Your task to perform on an android device: Is it going to rain today? Image 0: 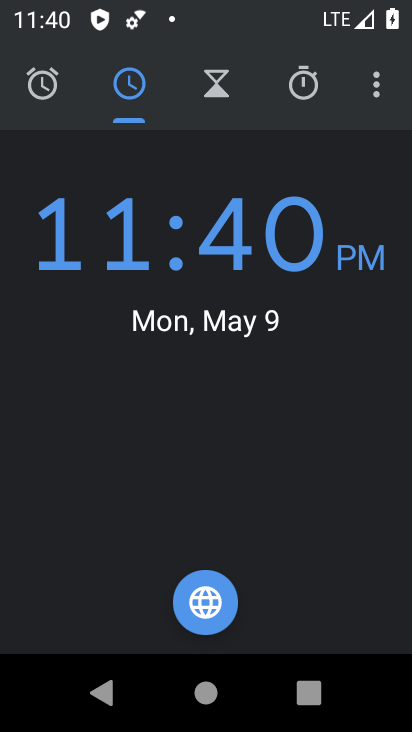
Step 0: press back button
Your task to perform on an android device: Is it going to rain today? Image 1: 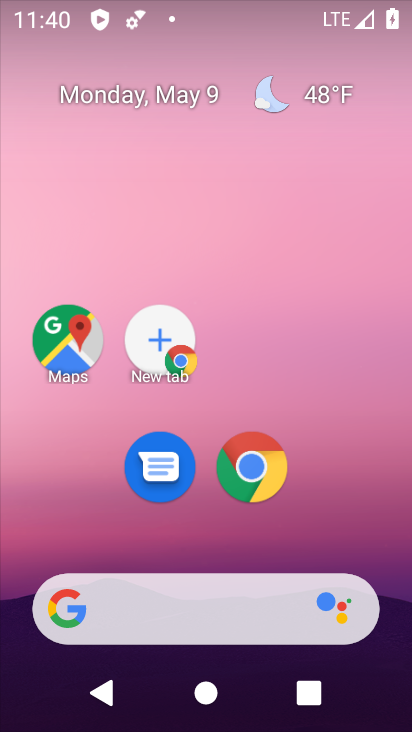
Step 1: drag from (411, 407) to (382, 383)
Your task to perform on an android device: Is it going to rain today? Image 2: 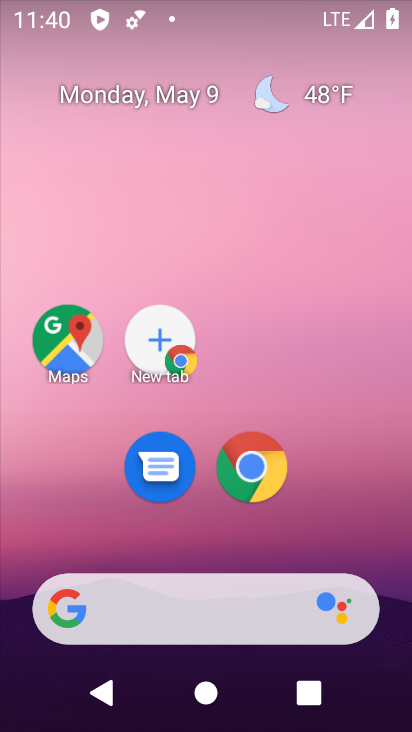
Step 2: click (277, 100)
Your task to perform on an android device: Is it going to rain today? Image 3: 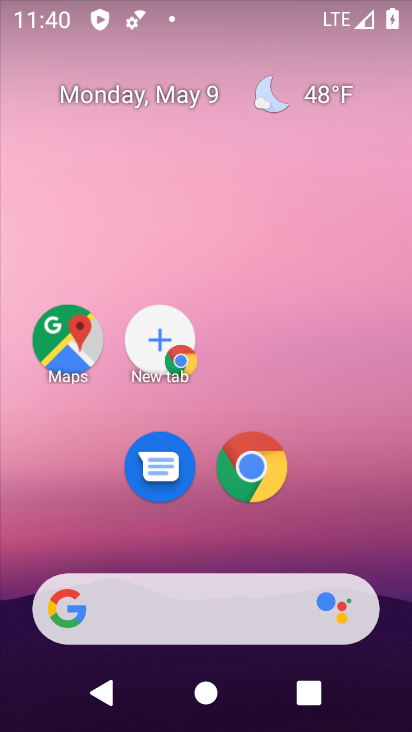
Step 3: click (277, 100)
Your task to perform on an android device: Is it going to rain today? Image 4: 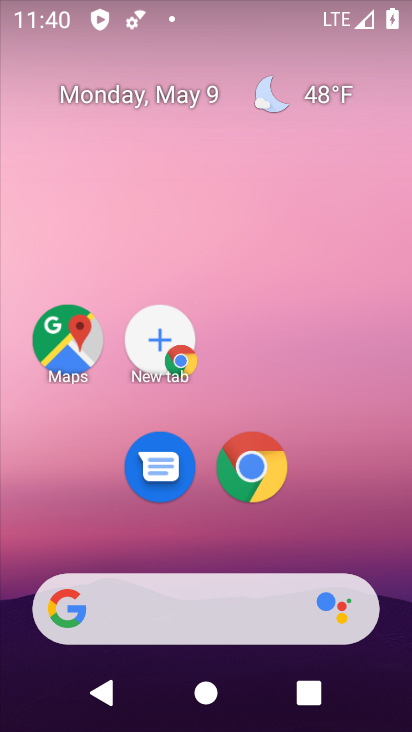
Step 4: click (277, 100)
Your task to perform on an android device: Is it going to rain today? Image 5: 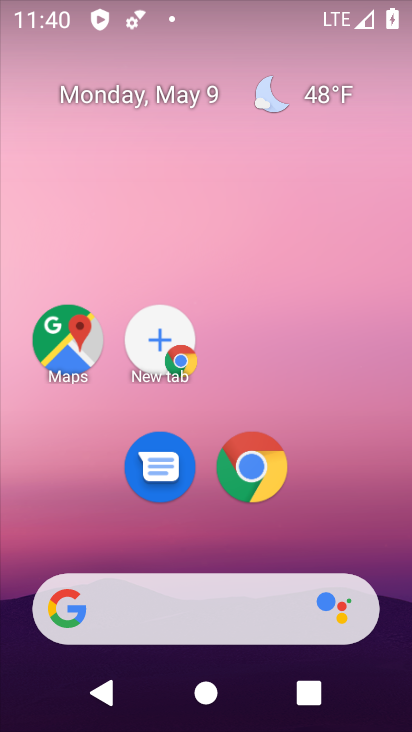
Step 5: click (277, 100)
Your task to perform on an android device: Is it going to rain today? Image 6: 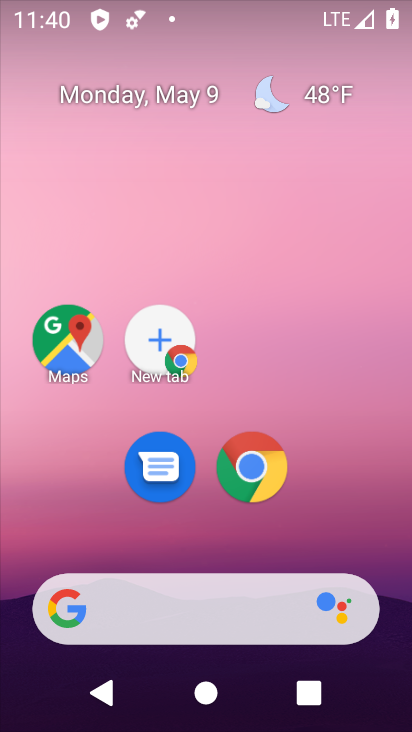
Step 6: click (276, 103)
Your task to perform on an android device: Is it going to rain today? Image 7: 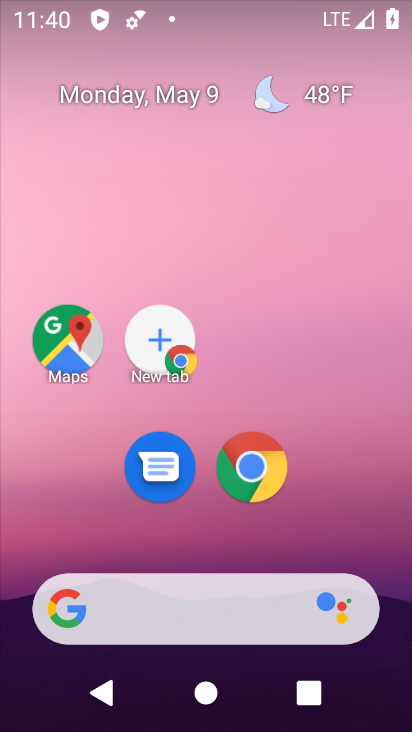
Step 7: click (276, 103)
Your task to perform on an android device: Is it going to rain today? Image 8: 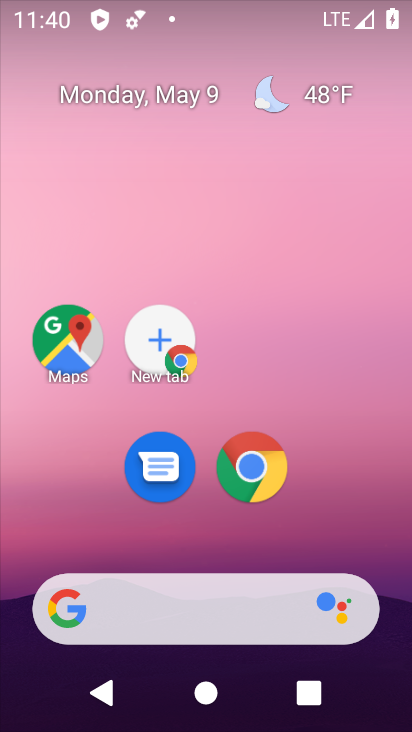
Step 8: click (276, 103)
Your task to perform on an android device: Is it going to rain today? Image 9: 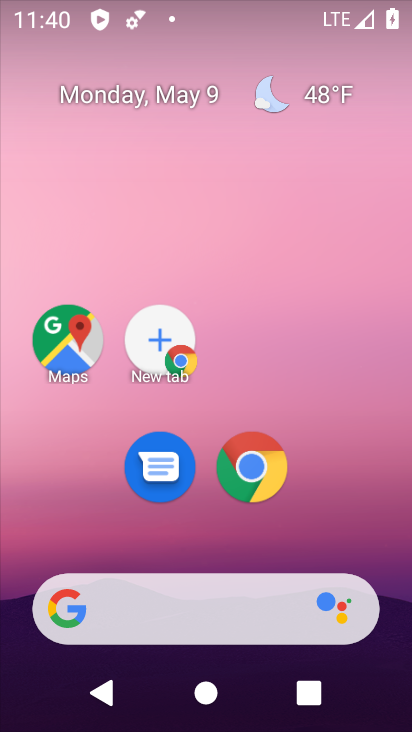
Step 9: click (276, 103)
Your task to perform on an android device: Is it going to rain today? Image 10: 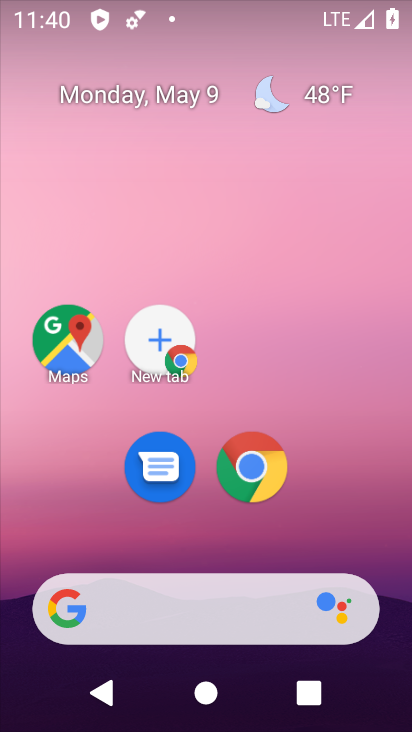
Step 10: click (266, 94)
Your task to perform on an android device: Is it going to rain today? Image 11: 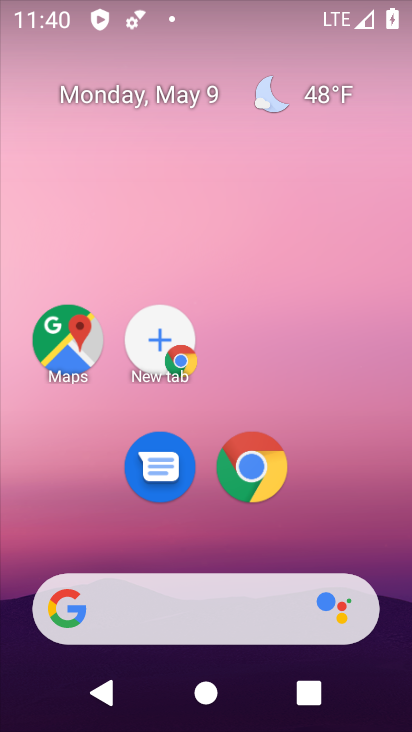
Step 11: click (269, 93)
Your task to perform on an android device: Is it going to rain today? Image 12: 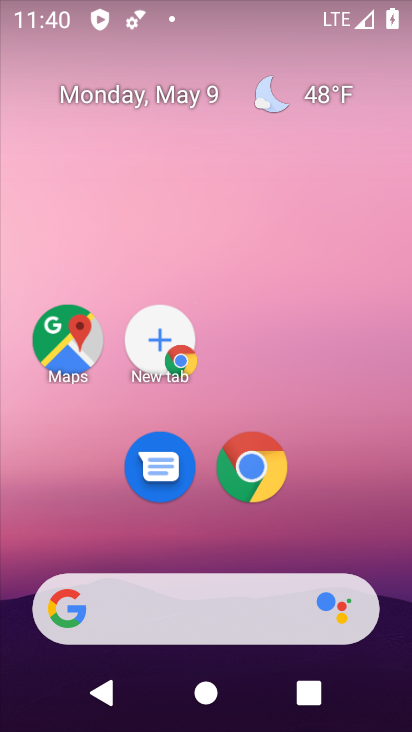
Step 12: click (269, 93)
Your task to perform on an android device: Is it going to rain today? Image 13: 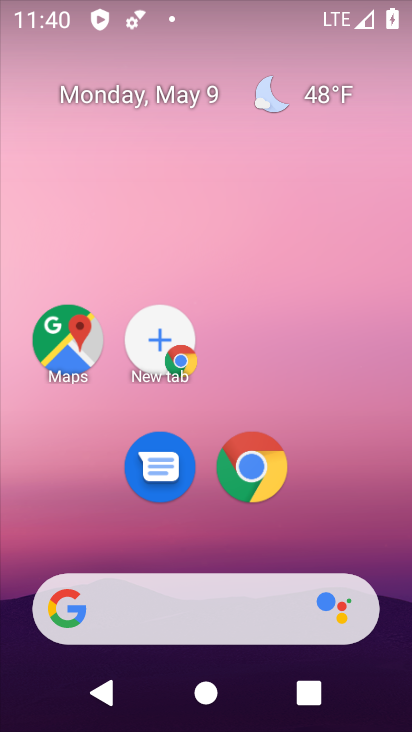
Step 13: click (274, 109)
Your task to perform on an android device: Is it going to rain today? Image 14: 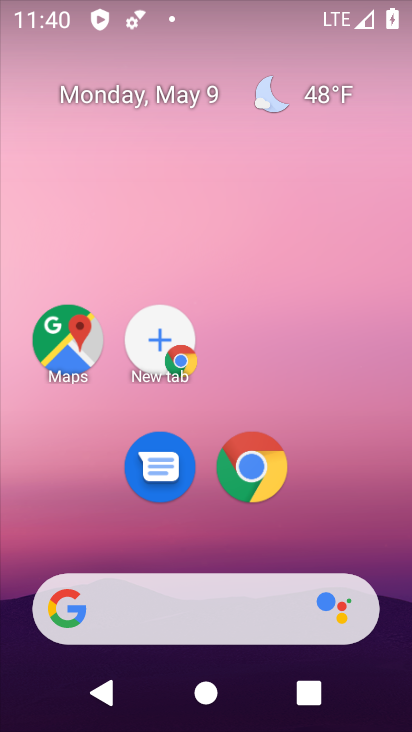
Step 14: click (274, 114)
Your task to perform on an android device: Is it going to rain today? Image 15: 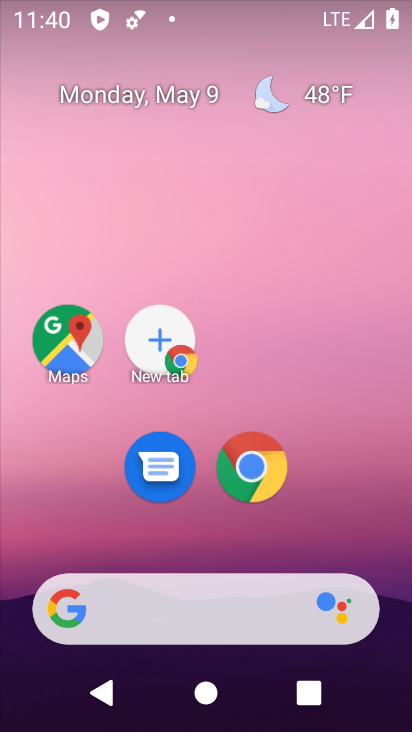
Step 15: click (255, 104)
Your task to perform on an android device: Is it going to rain today? Image 16: 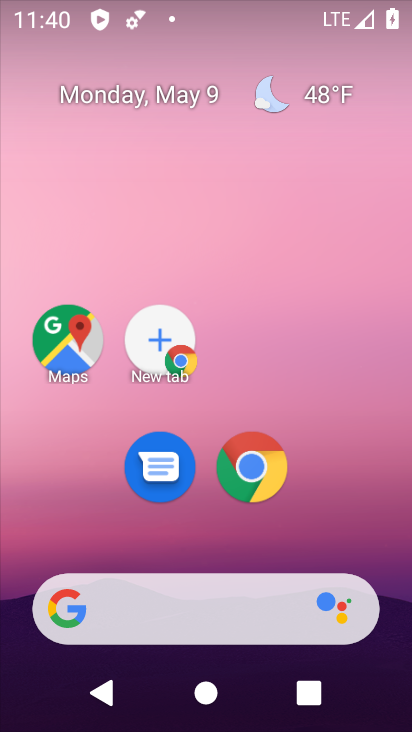
Step 16: click (276, 112)
Your task to perform on an android device: Is it going to rain today? Image 17: 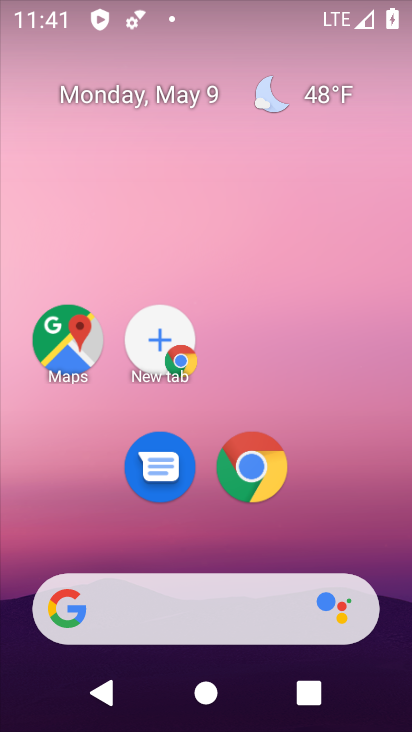
Step 17: click (267, 84)
Your task to perform on an android device: Is it going to rain today? Image 18: 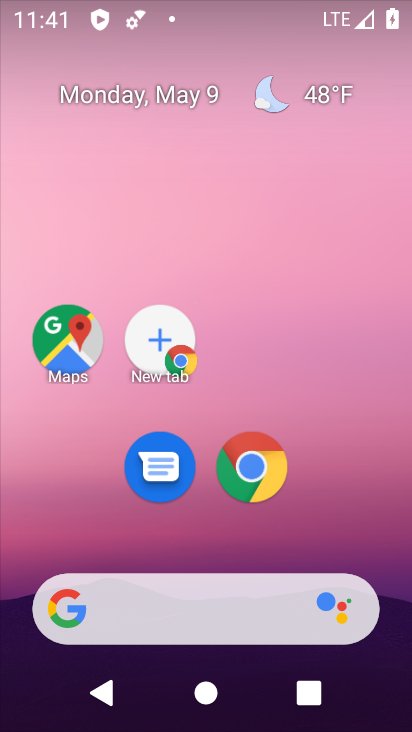
Step 18: click (265, 100)
Your task to perform on an android device: Is it going to rain today? Image 19: 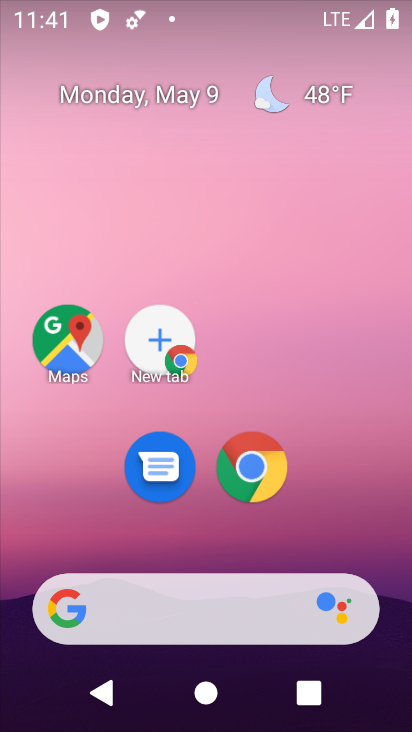
Step 19: click (265, 100)
Your task to perform on an android device: Is it going to rain today? Image 20: 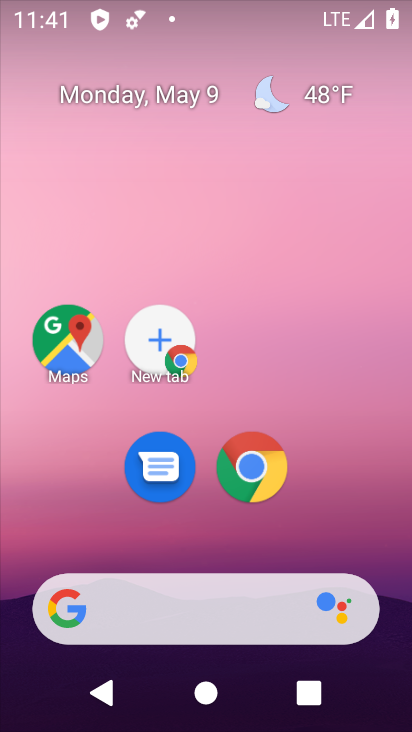
Step 20: click (265, 100)
Your task to perform on an android device: Is it going to rain today? Image 21: 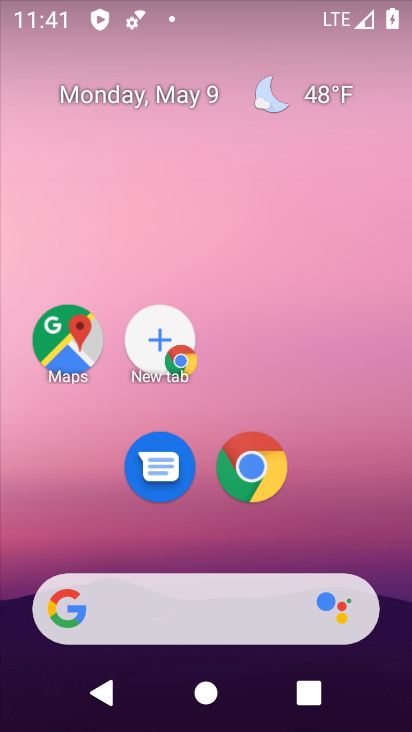
Step 21: click (268, 97)
Your task to perform on an android device: Is it going to rain today? Image 22: 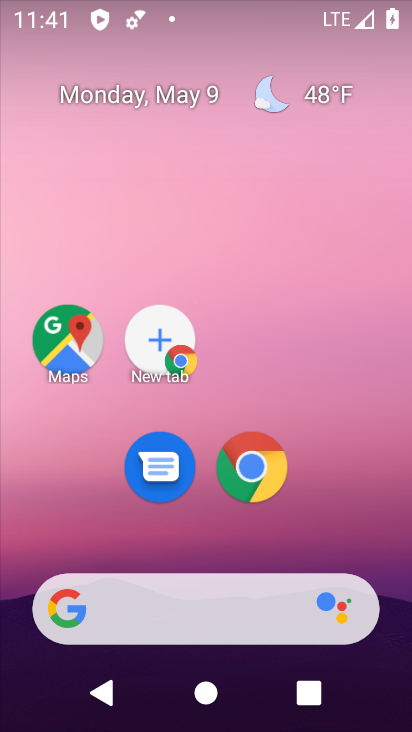
Step 22: click (268, 97)
Your task to perform on an android device: Is it going to rain today? Image 23: 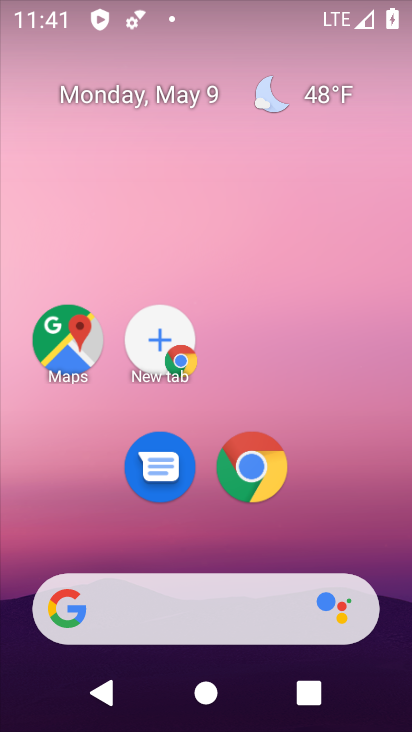
Step 23: click (272, 81)
Your task to perform on an android device: Is it going to rain today? Image 24: 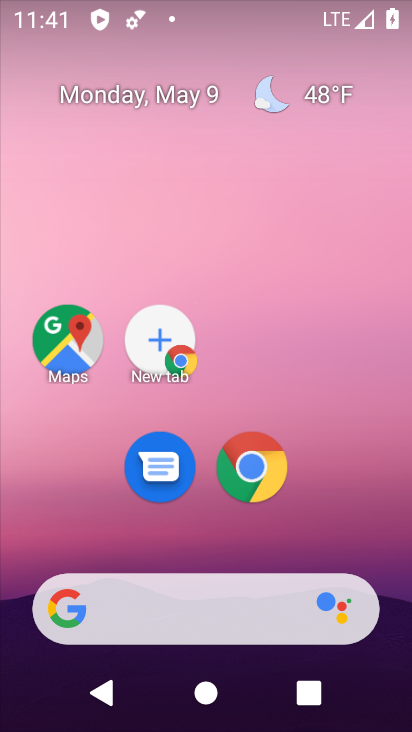
Step 24: click (280, 85)
Your task to perform on an android device: Is it going to rain today? Image 25: 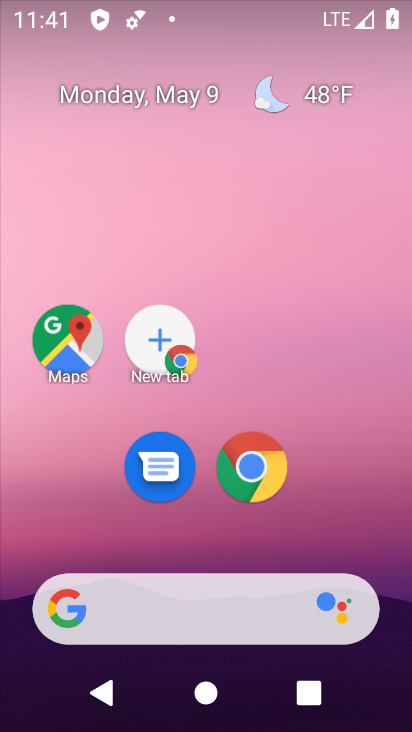
Step 25: click (282, 89)
Your task to perform on an android device: Is it going to rain today? Image 26: 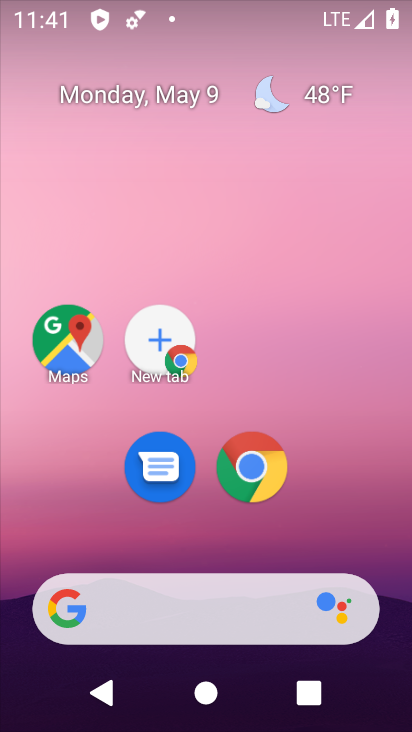
Step 26: click (282, 91)
Your task to perform on an android device: Is it going to rain today? Image 27: 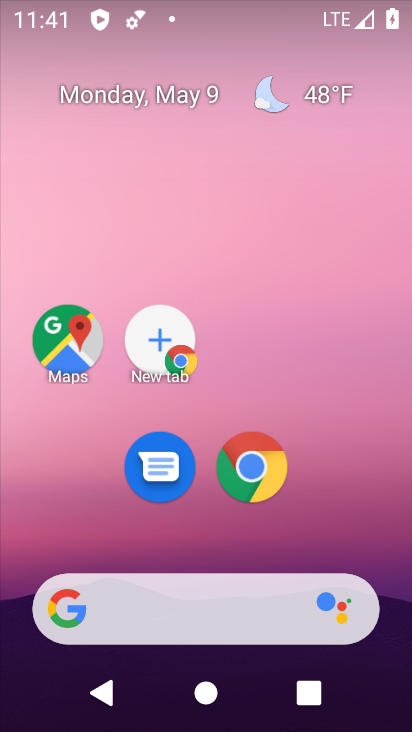
Step 27: click (286, 107)
Your task to perform on an android device: Is it going to rain today? Image 28: 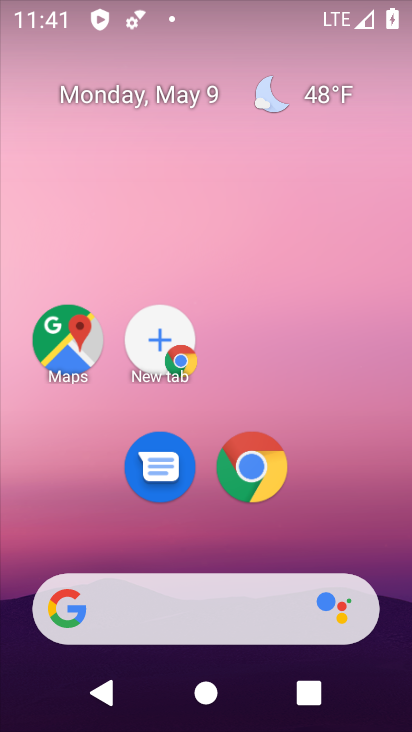
Step 28: click (286, 107)
Your task to perform on an android device: Is it going to rain today? Image 29: 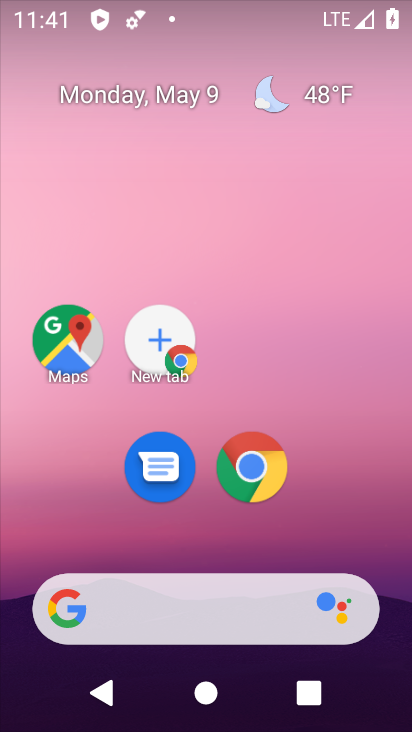
Step 29: click (267, 104)
Your task to perform on an android device: Is it going to rain today? Image 30: 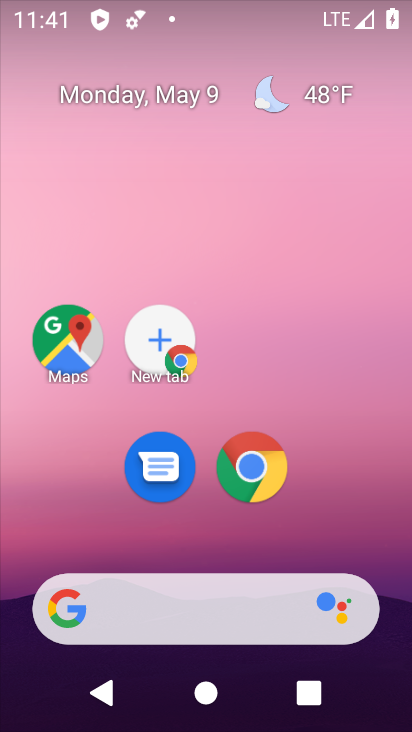
Step 30: click (267, 111)
Your task to perform on an android device: Is it going to rain today? Image 31: 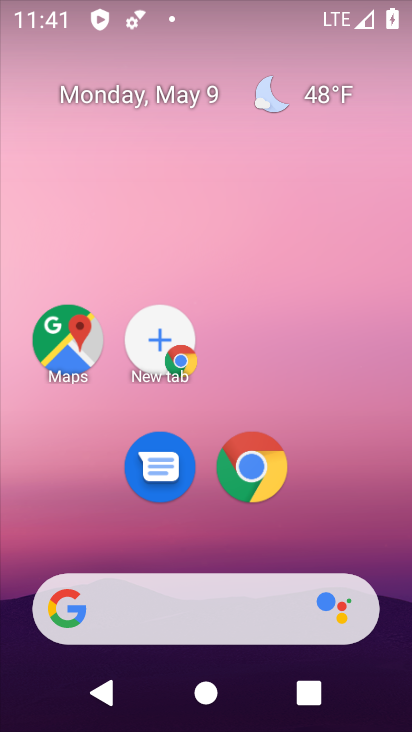
Step 31: click (267, 108)
Your task to perform on an android device: Is it going to rain today? Image 32: 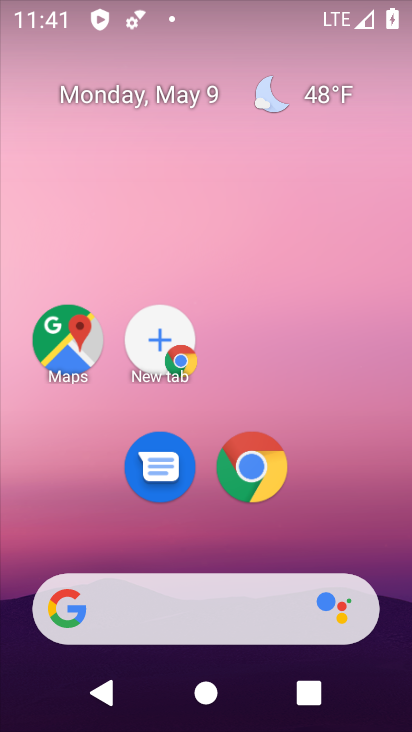
Step 32: click (267, 107)
Your task to perform on an android device: Is it going to rain today? Image 33: 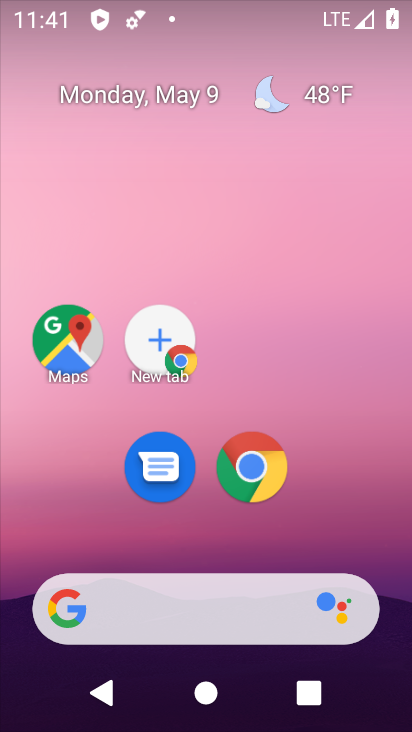
Step 33: click (267, 107)
Your task to perform on an android device: Is it going to rain today? Image 34: 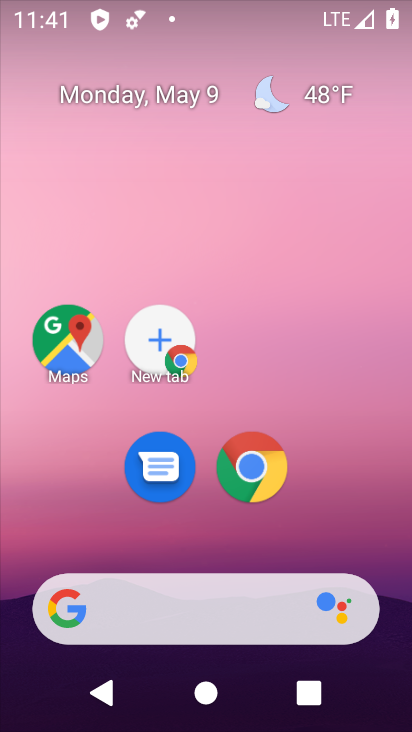
Step 34: click (278, 110)
Your task to perform on an android device: Is it going to rain today? Image 35: 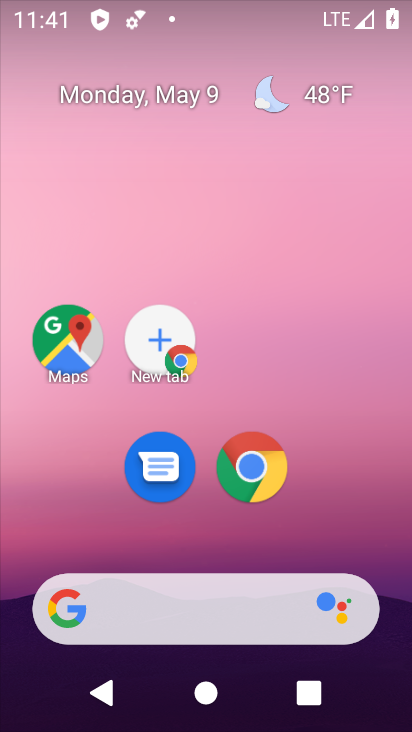
Step 35: click (278, 110)
Your task to perform on an android device: Is it going to rain today? Image 36: 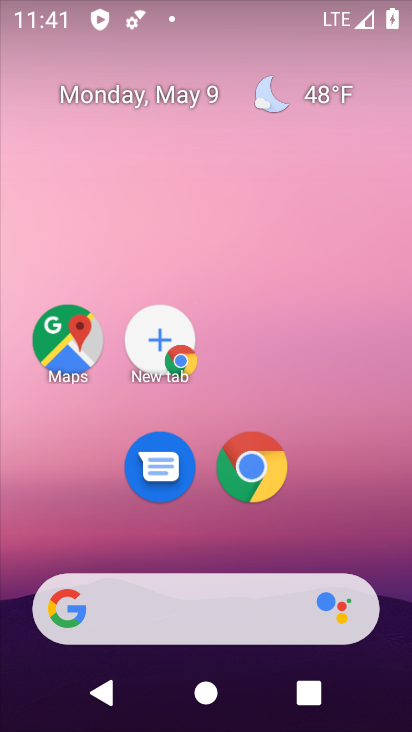
Step 36: click (278, 110)
Your task to perform on an android device: Is it going to rain today? Image 37: 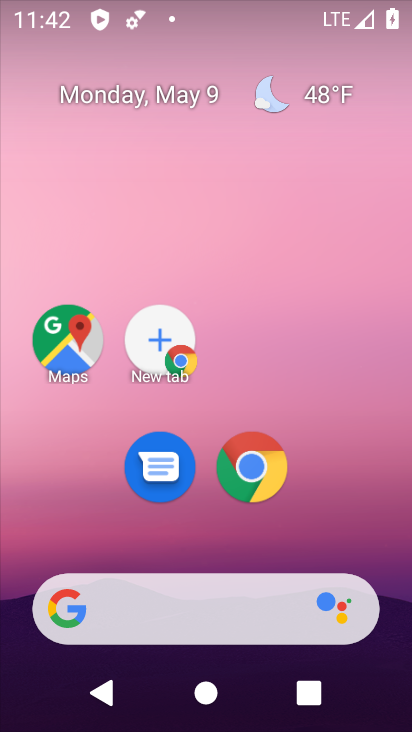
Step 37: click (268, 96)
Your task to perform on an android device: Is it going to rain today? Image 38: 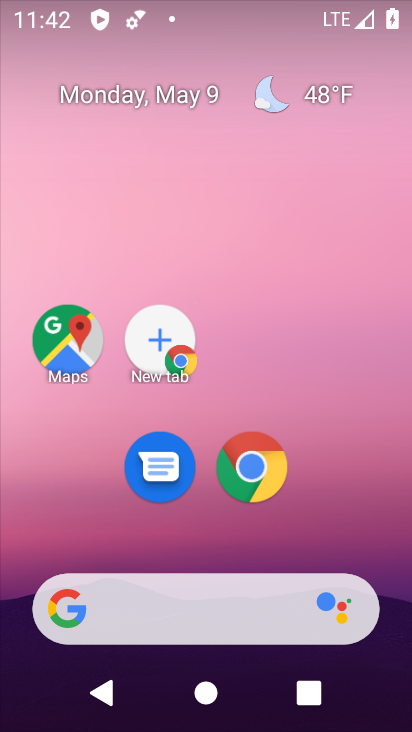
Step 38: click (268, 94)
Your task to perform on an android device: Is it going to rain today? Image 39: 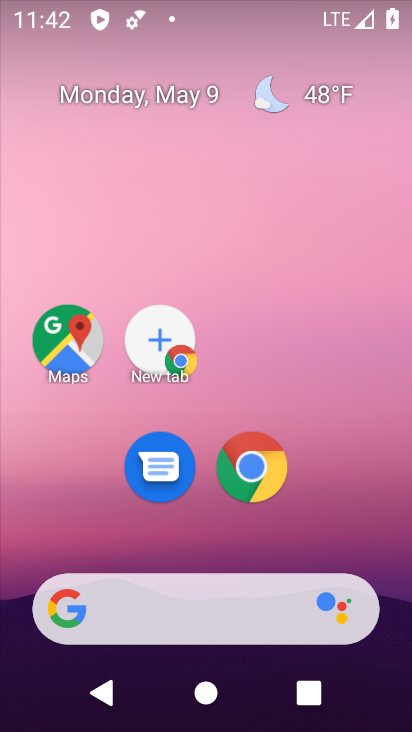
Step 39: click (276, 100)
Your task to perform on an android device: Is it going to rain today? Image 40: 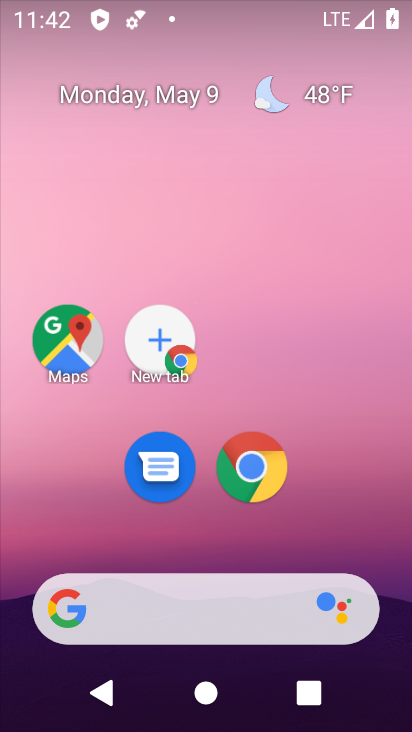
Step 40: click (277, 101)
Your task to perform on an android device: Is it going to rain today? Image 41: 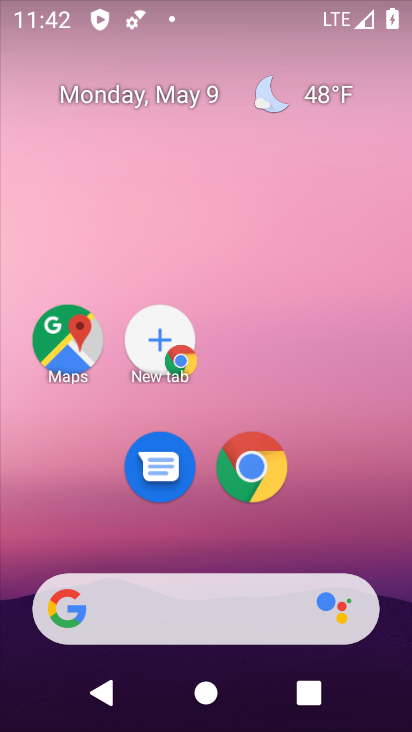
Step 41: click (277, 101)
Your task to perform on an android device: Is it going to rain today? Image 42: 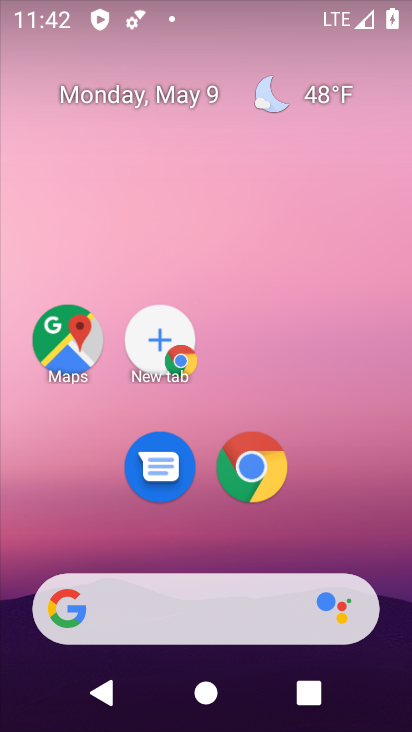
Step 42: drag from (278, 101) to (297, 144)
Your task to perform on an android device: Is it going to rain today? Image 43: 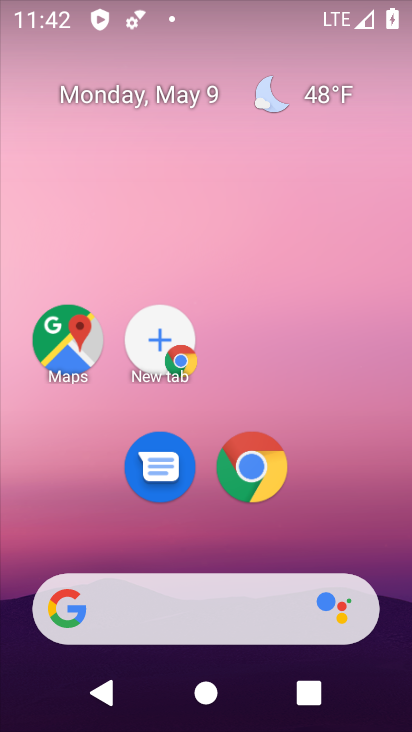
Step 43: click (299, 133)
Your task to perform on an android device: Is it going to rain today? Image 44: 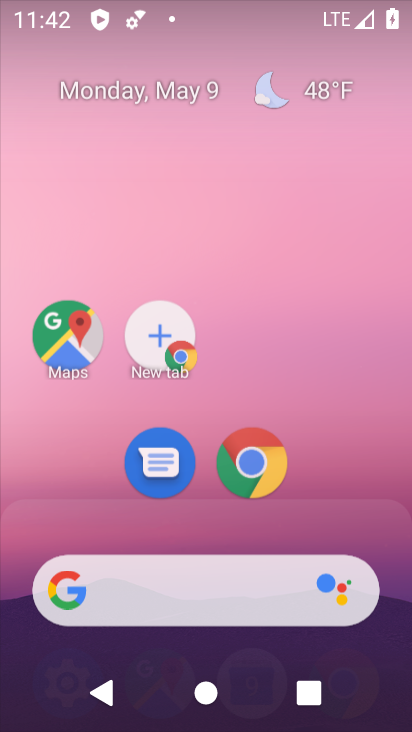
Step 44: click (286, 105)
Your task to perform on an android device: Is it going to rain today? Image 45: 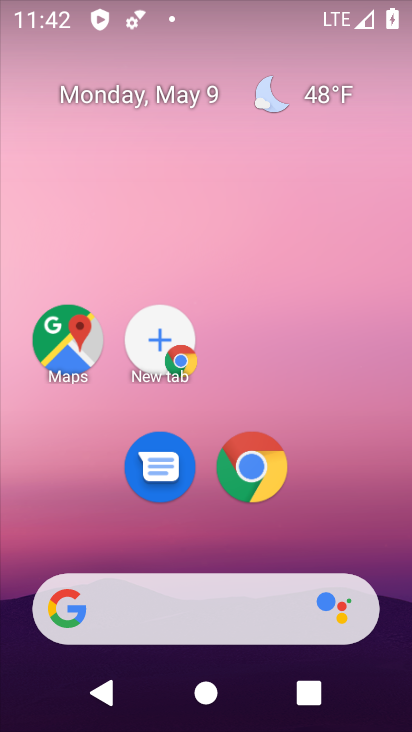
Step 45: click (277, 82)
Your task to perform on an android device: Is it going to rain today? Image 46: 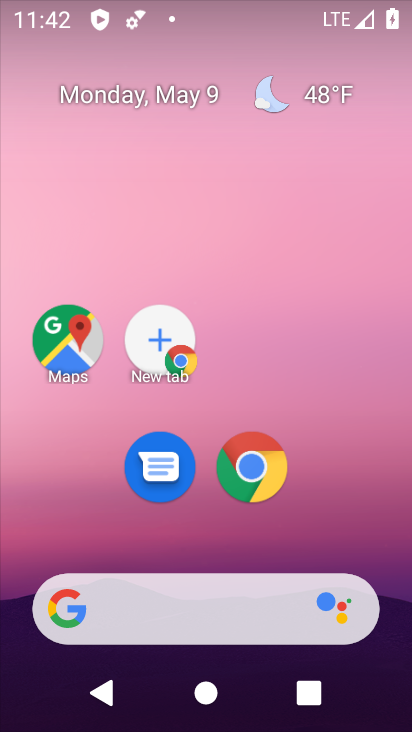
Step 46: click (277, 82)
Your task to perform on an android device: Is it going to rain today? Image 47: 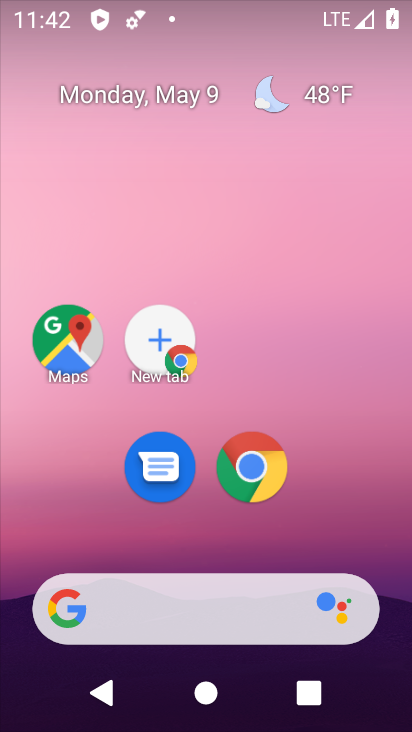
Step 47: click (276, 85)
Your task to perform on an android device: Is it going to rain today? Image 48: 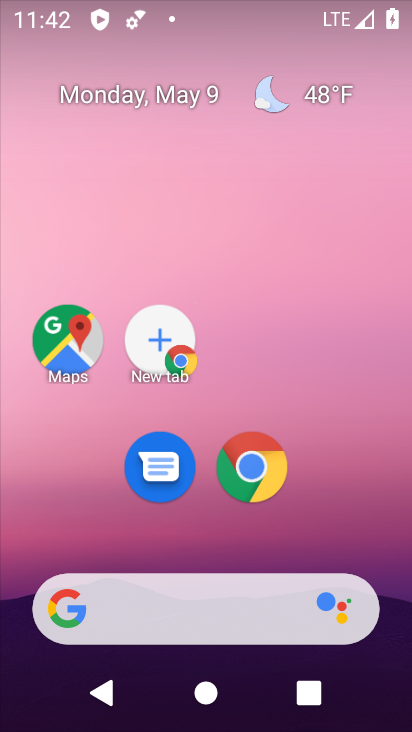
Step 48: drag from (300, 93) to (333, 108)
Your task to perform on an android device: Is it going to rain today? Image 49: 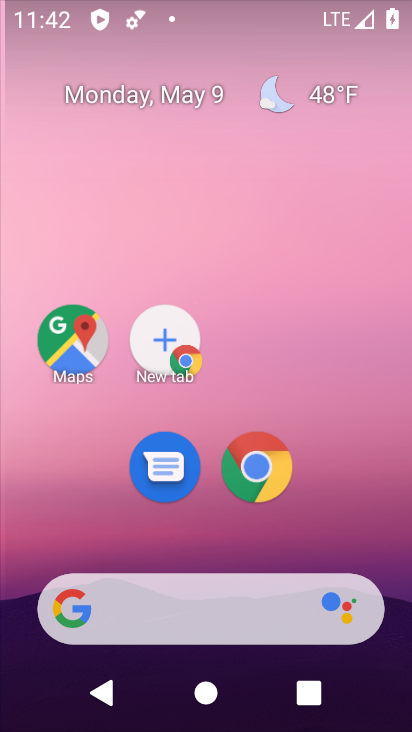
Step 49: click (331, 110)
Your task to perform on an android device: Is it going to rain today? Image 50: 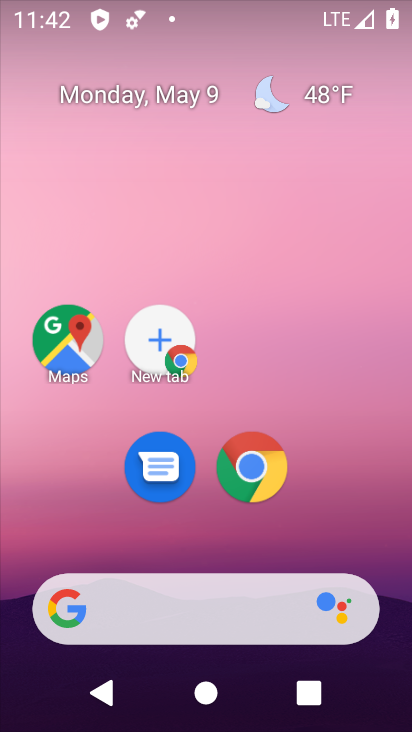
Step 50: click (329, 102)
Your task to perform on an android device: Is it going to rain today? Image 51: 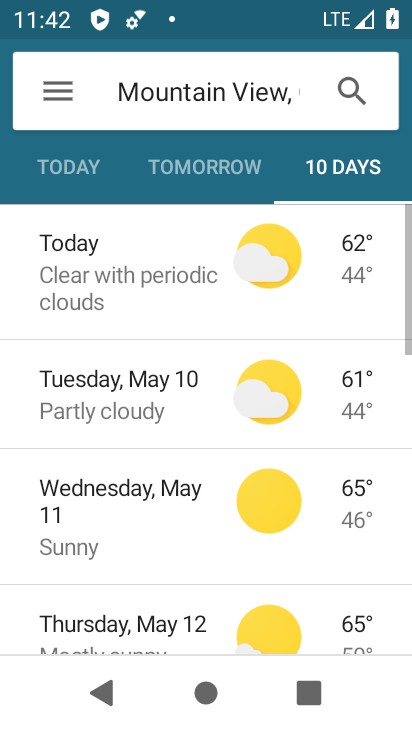
Step 51: click (328, 95)
Your task to perform on an android device: Is it going to rain today? Image 52: 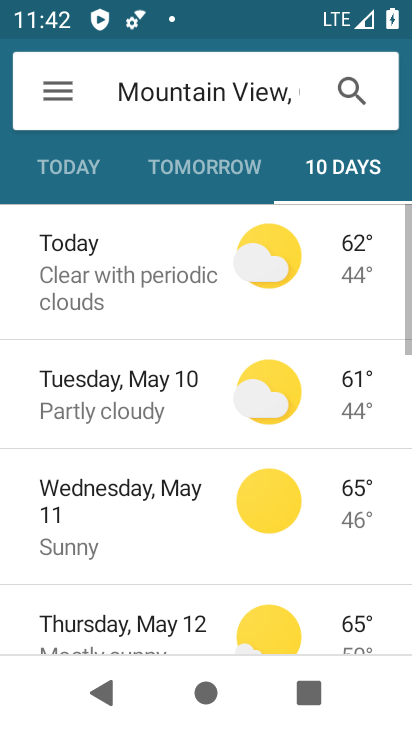
Step 52: click (328, 95)
Your task to perform on an android device: Is it going to rain today? Image 53: 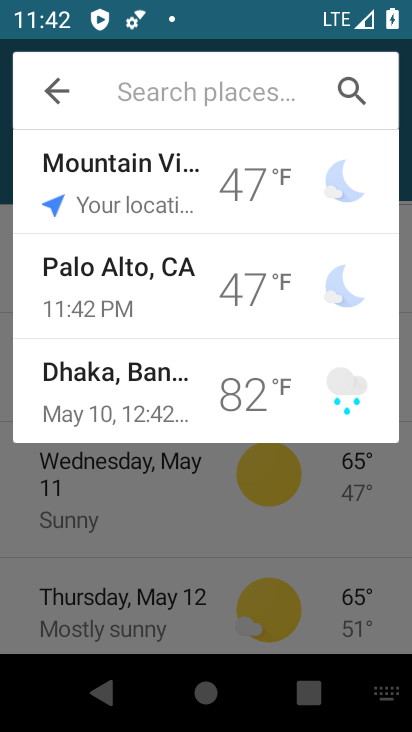
Step 53: click (54, 72)
Your task to perform on an android device: Is it going to rain today? Image 54: 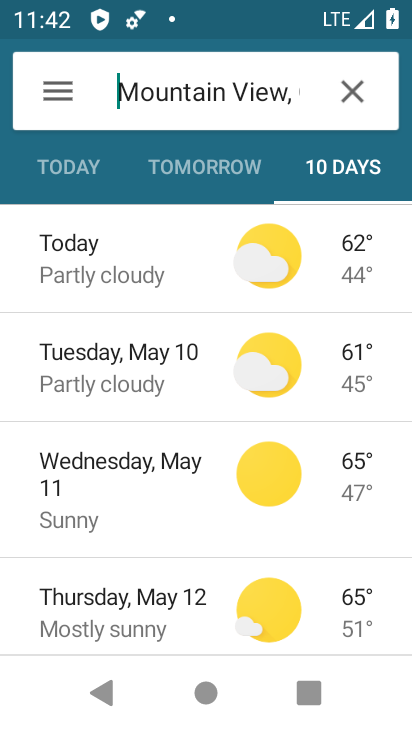
Step 54: task complete